Your task to perform on an android device: Open network settings Image 0: 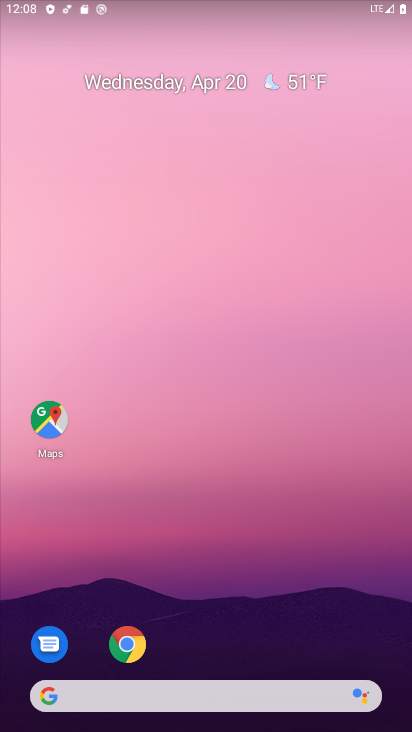
Step 0: drag from (200, 722) to (190, 104)
Your task to perform on an android device: Open network settings Image 1: 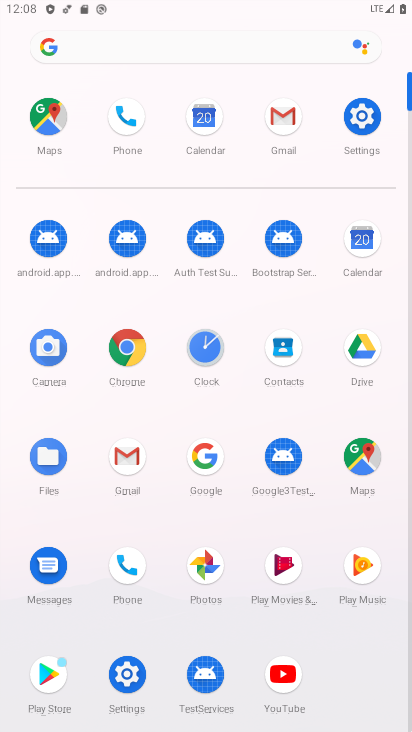
Step 1: click (360, 113)
Your task to perform on an android device: Open network settings Image 2: 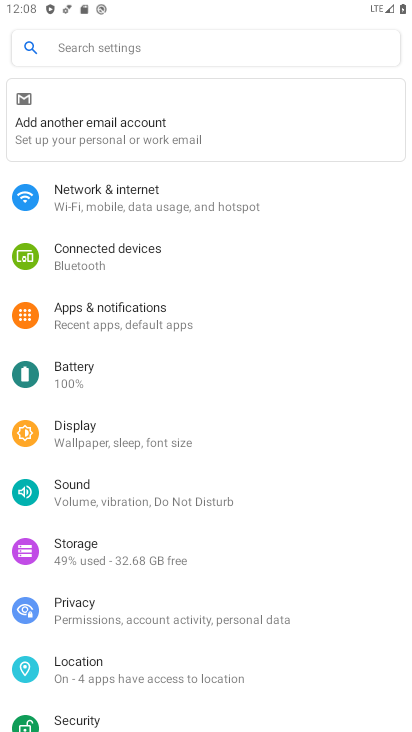
Step 2: click (125, 195)
Your task to perform on an android device: Open network settings Image 3: 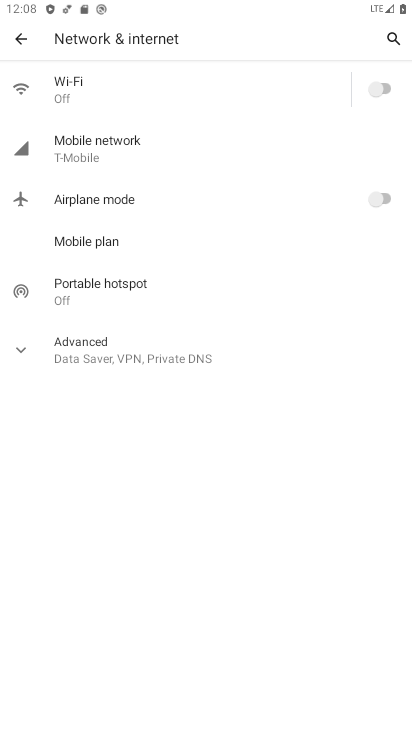
Step 3: click (85, 151)
Your task to perform on an android device: Open network settings Image 4: 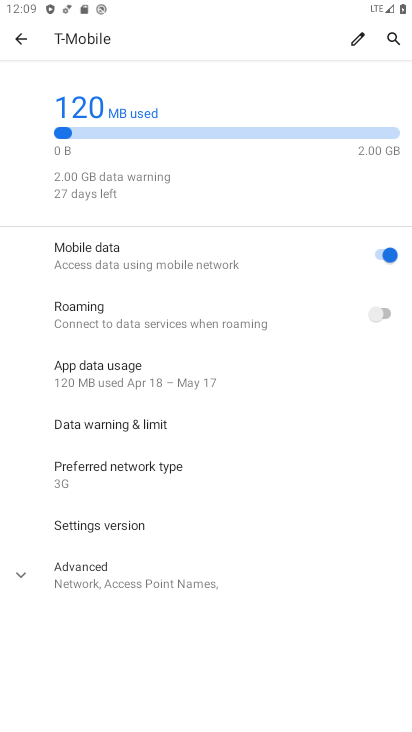
Step 4: task complete